Your task to perform on an android device: Do I have any events tomorrow? Image 0: 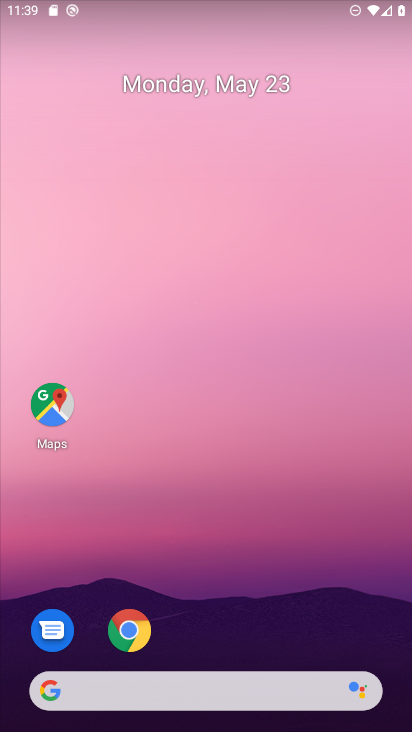
Step 0: drag from (191, 629) to (193, 225)
Your task to perform on an android device: Do I have any events tomorrow? Image 1: 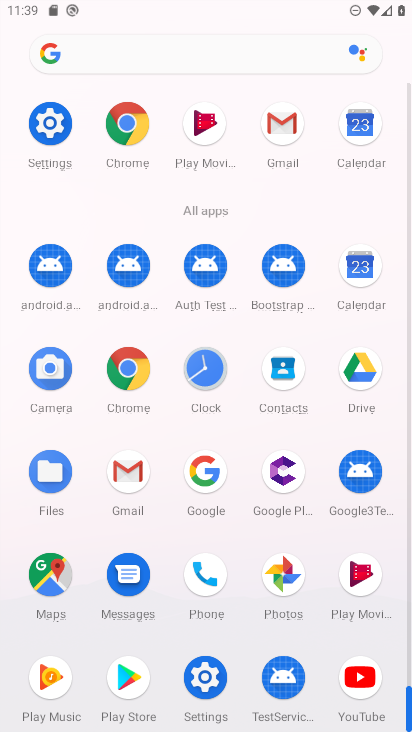
Step 1: click (361, 280)
Your task to perform on an android device: Do I have any events tomorrow? Image 2: 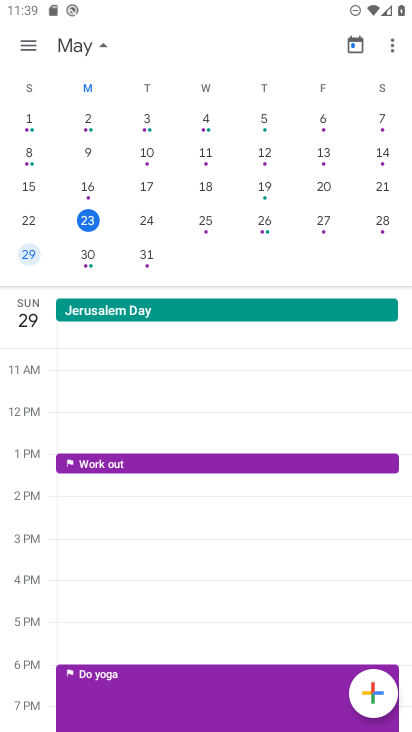
Step 2: click (139, 217)
Your task to perform on an android device: Do I have any events tomorrow? Image 3: 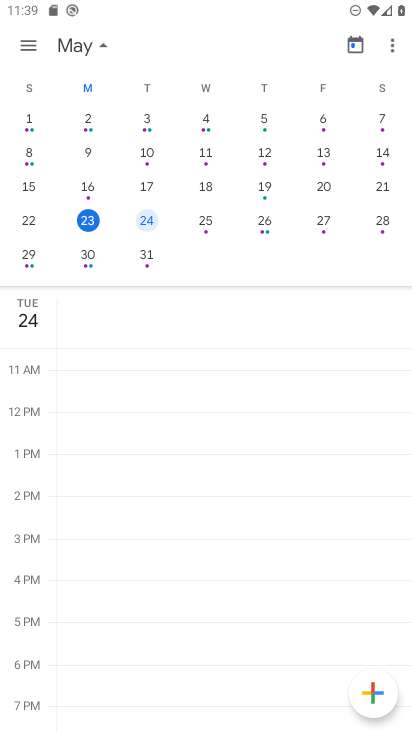
Step 3: task complete